Your task to perform on an android device: Go to calendar. Show me events next week Image 0: 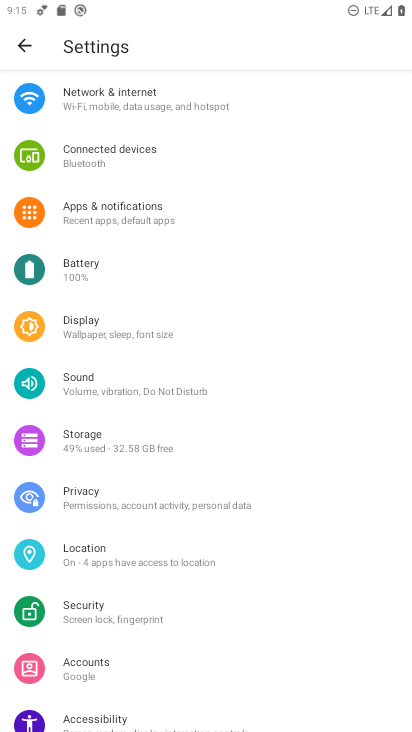
Step 0: press home button
Your task to perform on an android device: Go to calendar. Show me events next week Image 1: 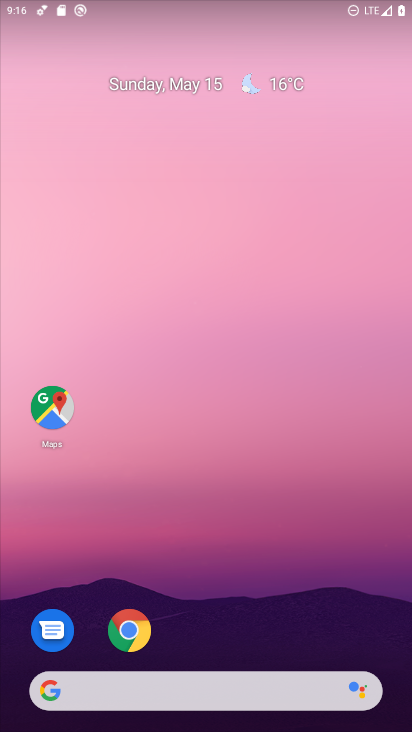
Step 1: drag from (114, 680) to (182, 412)
Your task to perform on an android device: Go to calendar. Show me events next week Image 2: 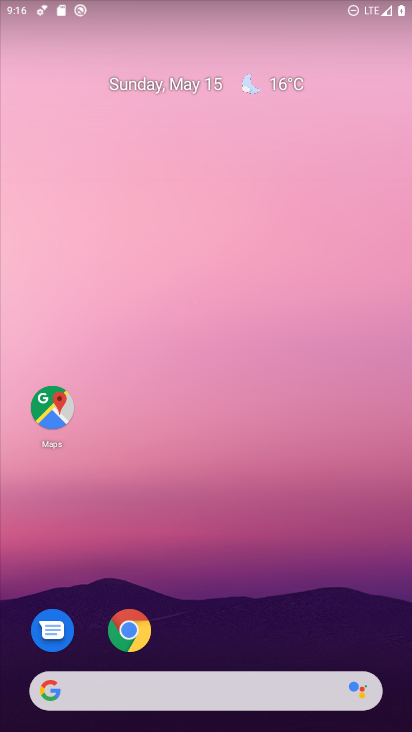
Step 2: drag from (192, 508) to (139, 16)
Your task to perform on an android device: Go to calendar. Show me events next week Image 3: 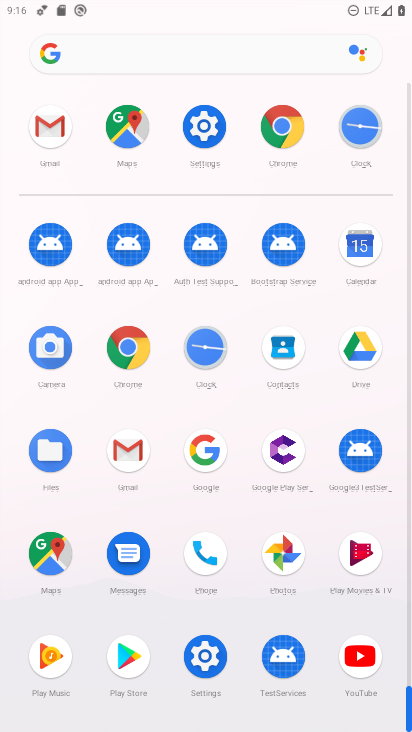
Step 3: click (375, 267)
Your task to perform on an android device: Go to calendar. Show me events next week Image 4: 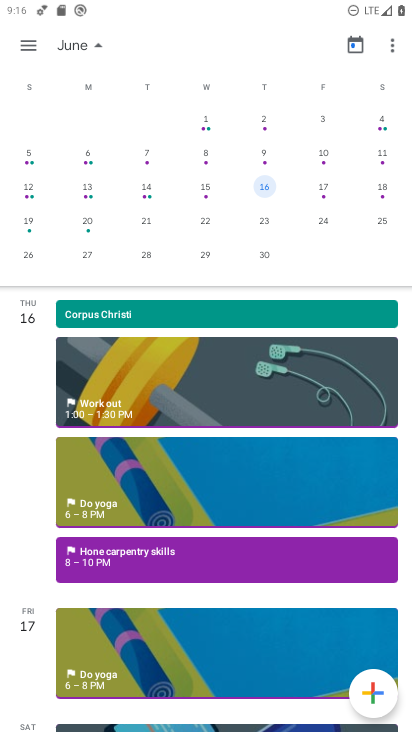
Step 4: click (262, 224)
Your task to perform on an android device: Go to calendar. Show me events next week Image 5: 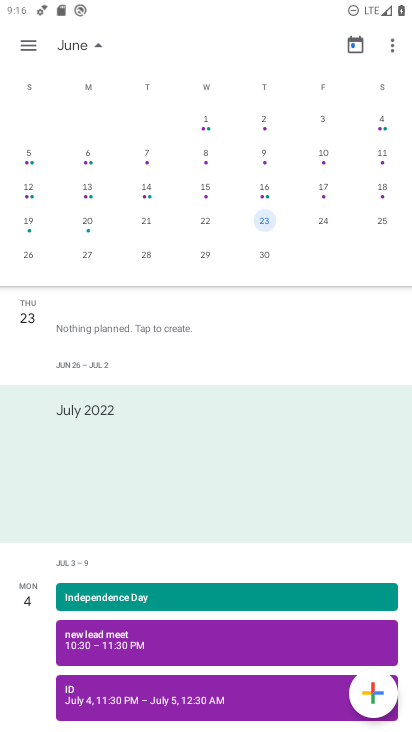
Step 5: task complete